Your task to perform on an android device: Go to location settings Image 0: 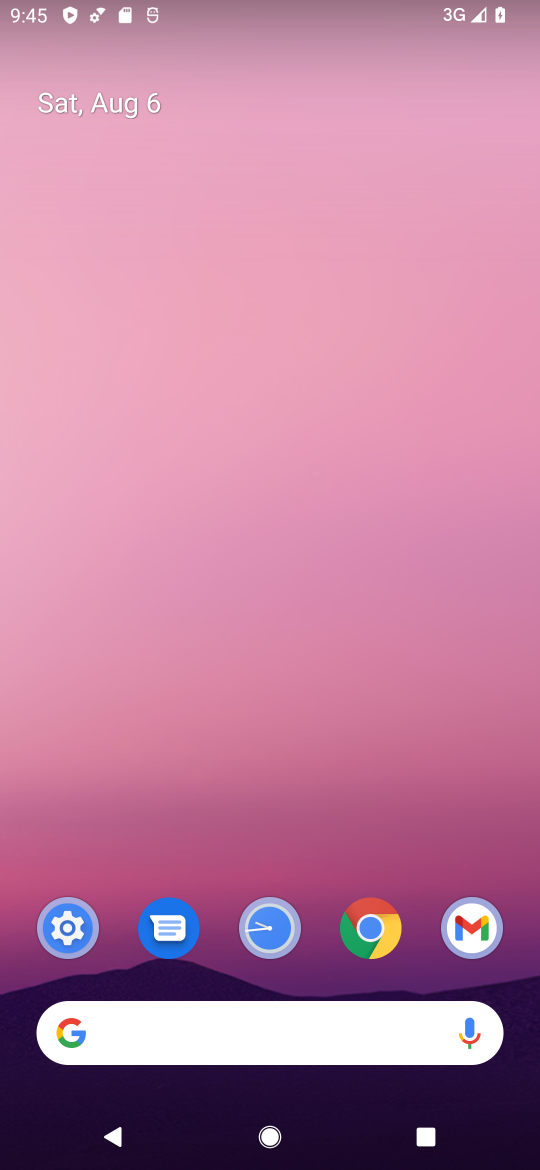
Step 0: click (296, 787)
Your task to perform on an android device: Go to location settings Image 1: 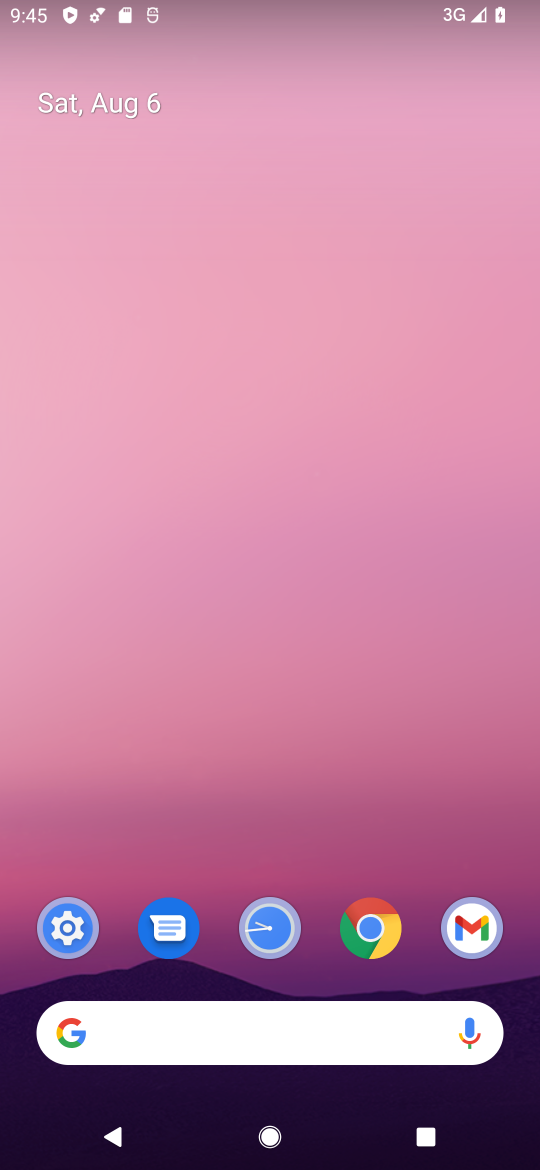
Step 1: drag from (222, 598) to (233, 319)
Your task to perform on an android device: Go to location settings Image 2: 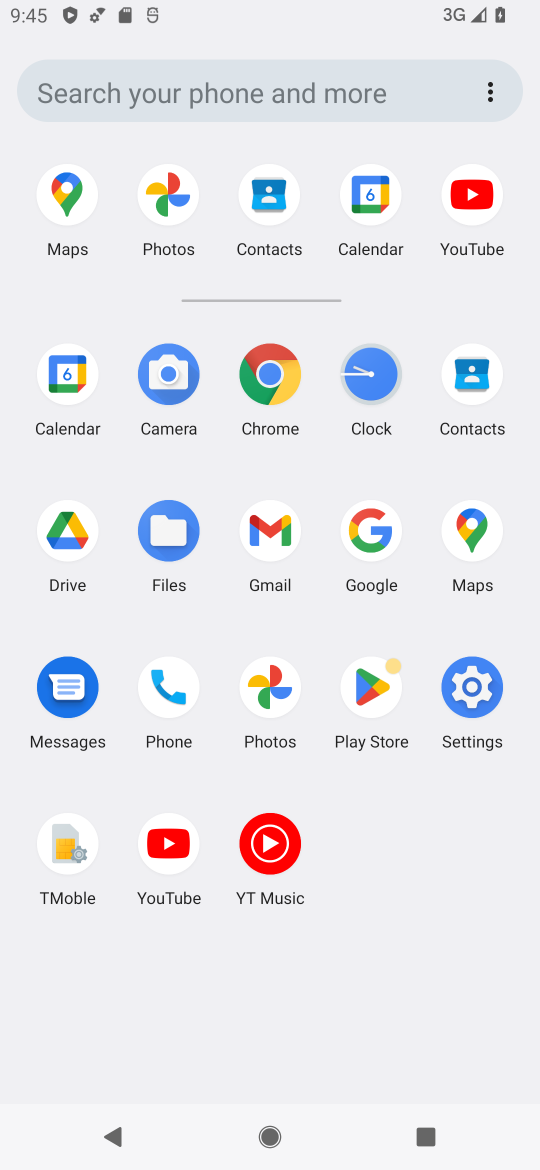
Step 2: click (467, 679)
Your task to perform on an android device: Go to location settings Image 3: 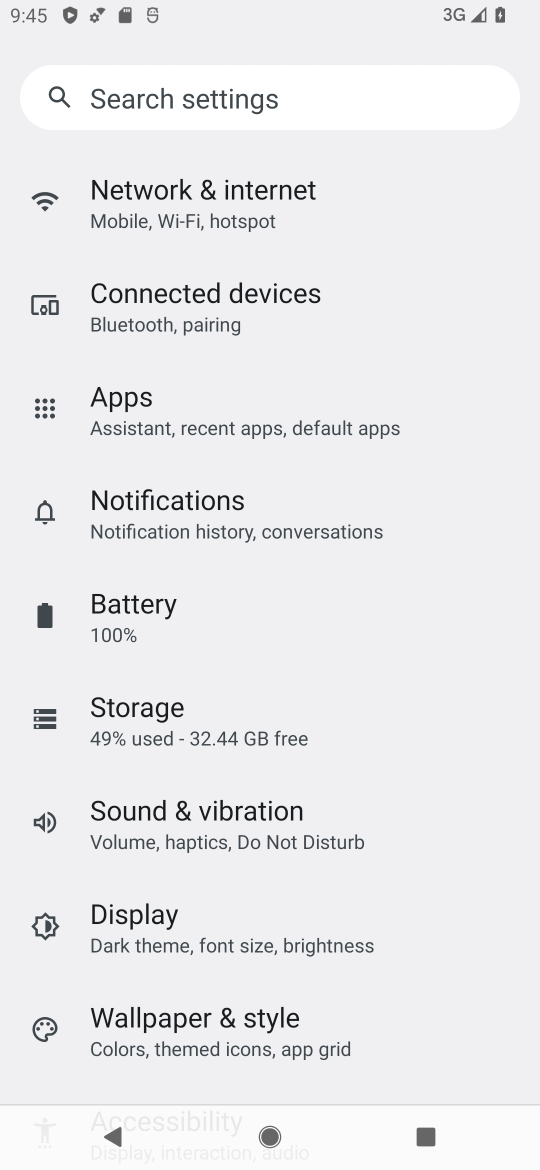
Step 3: drag from (406, 916) to (369, 349)
Your task to perform on an android device: Go to location settings Image 4: 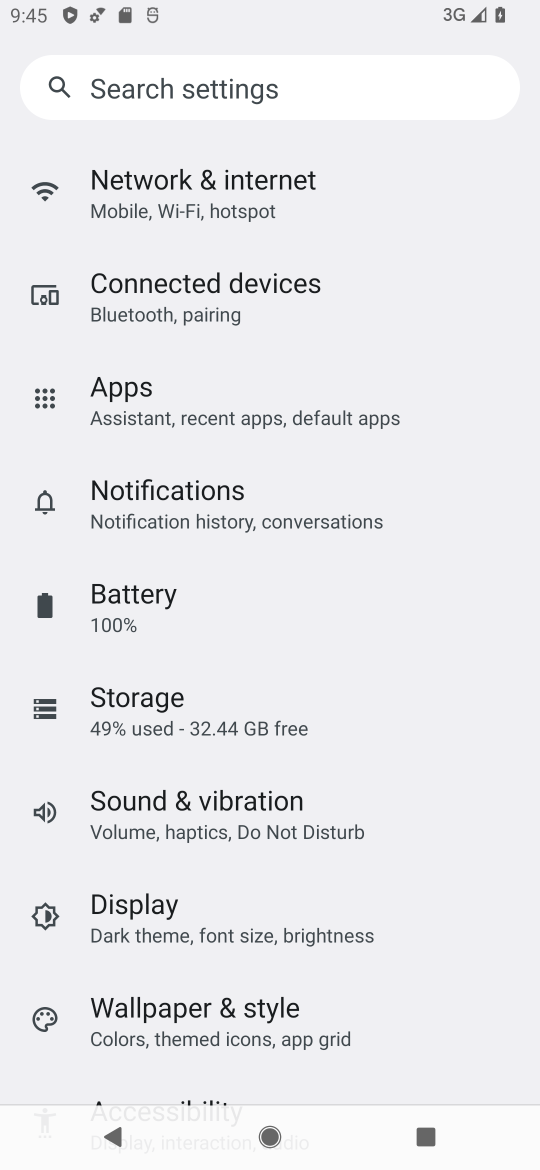
Step 4: drag from (198, 967) to (128, 279)
Your task to perform on an android device: Go to location settings Image 5: 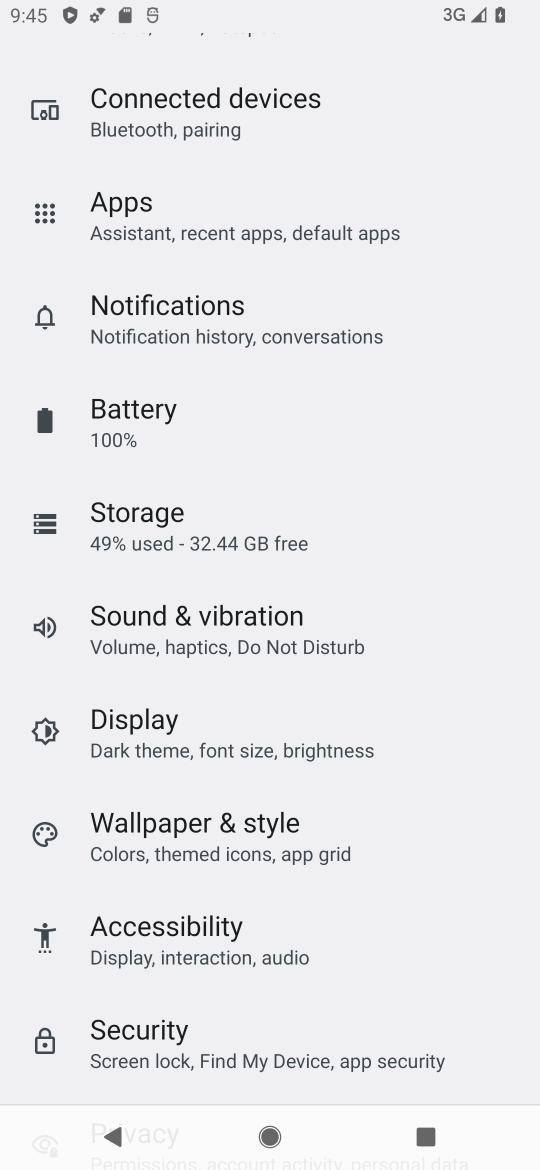
Step 5: drag from (212, 1026) to (120, 516)
Your task to perform on an android device: Go to location settings Image 6: 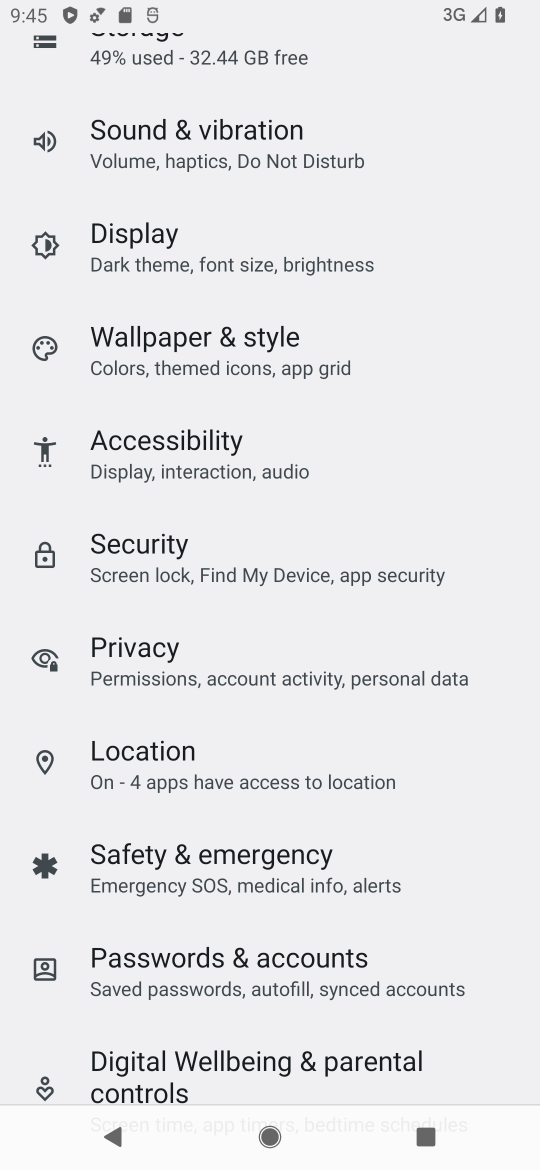
Step 6: click (129, 752)
Your task to perform on an android device: Go to location settings Image 7: 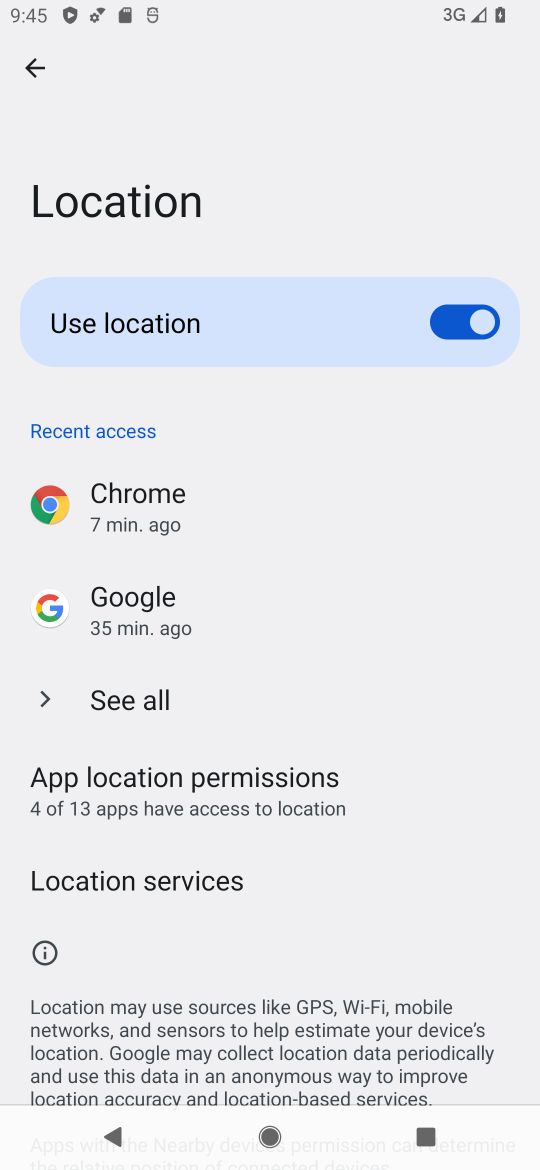
Step 7: task complete